Your task to perform on an android device: change timer sound Image 0: 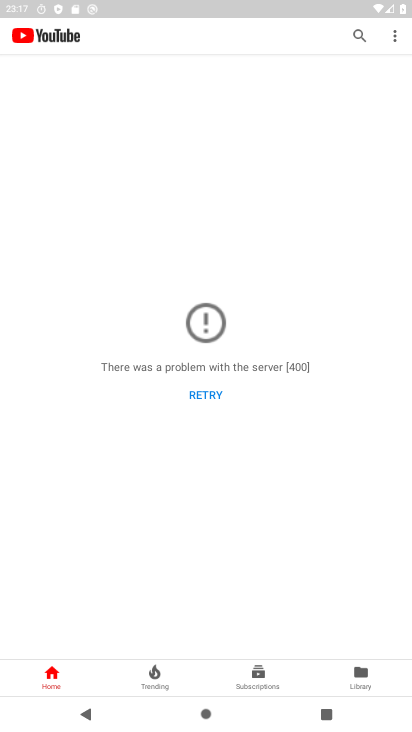
Step 0: press home button
Your task to perform on an android device: change timer sound Image 1: 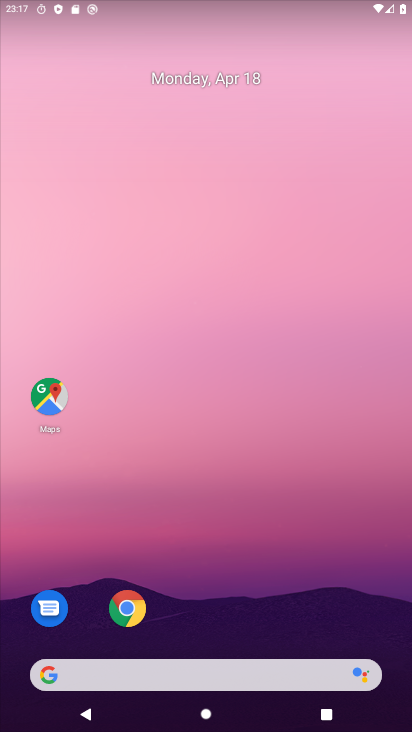
Step 1: drag from (237, 524) to (275, 118)
Your task to perform on an android device: change timer sound Image 2: 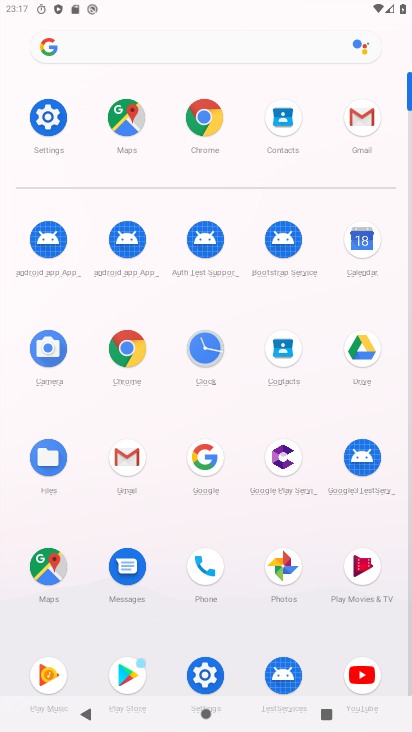
Step 2: click (207, 353)
Your task to perform on an android device: change timer sound Image 3: 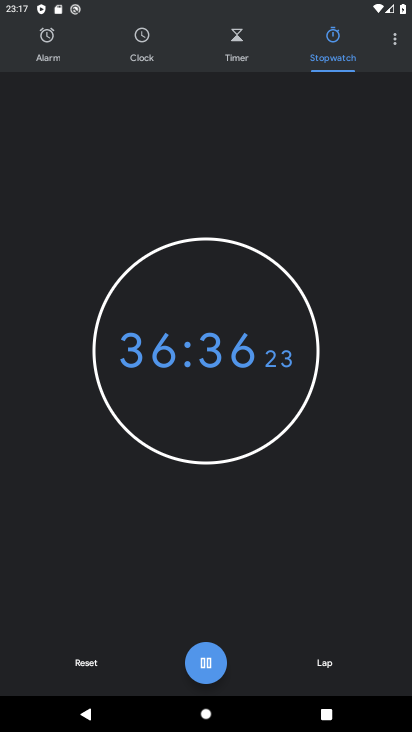
Step 3: click (396, 38)
Your task to perform on an android device: change timer sound Image 4: 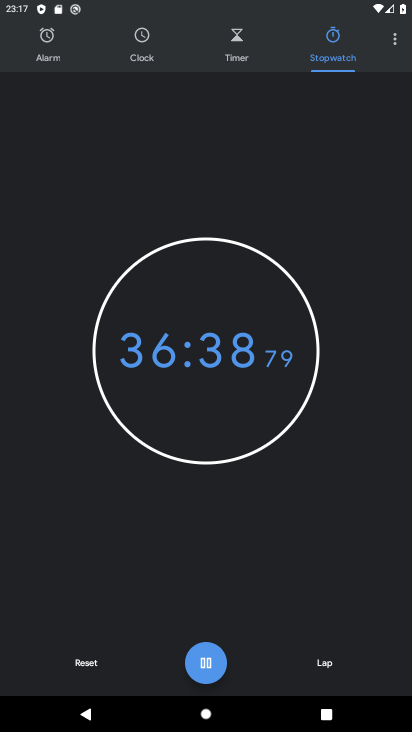
Step 4: click (386, 39)
Your task to perform on an android device: change timer sound Image 5: 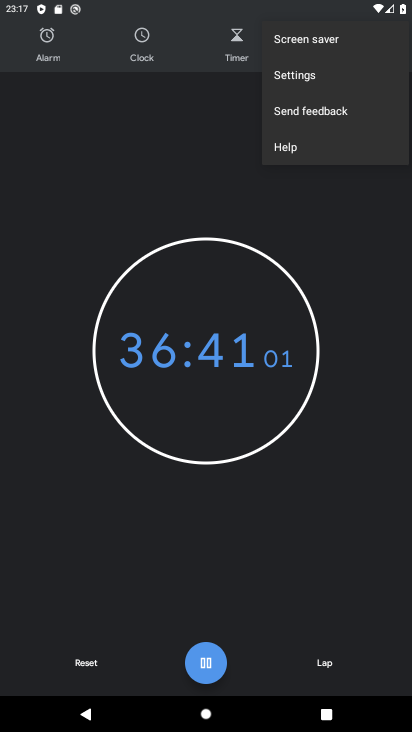
Step 5: click (283, 73)
Your task to perform on an android device: change timer sound Image 6: 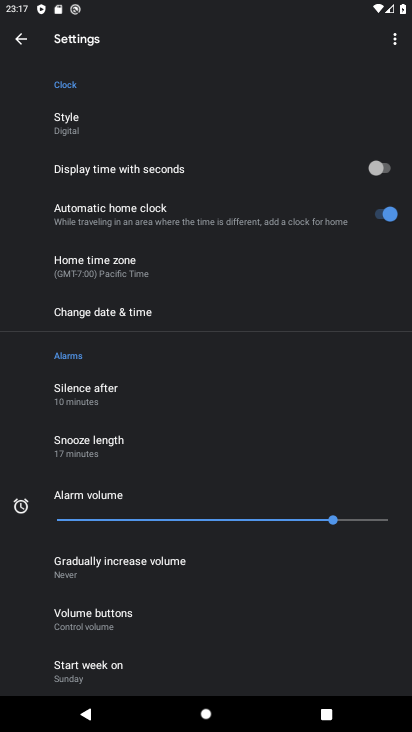
Step 6: drag from (163, 586) to (197, 228)
Your task to perform on an android device: change timer sound Image 7: 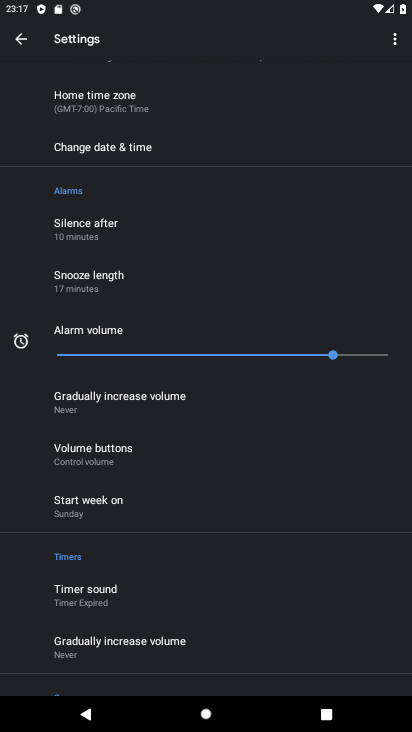
Step 7: click (104, 599)
Your task to perform on an android device: change timer sound Image 8: 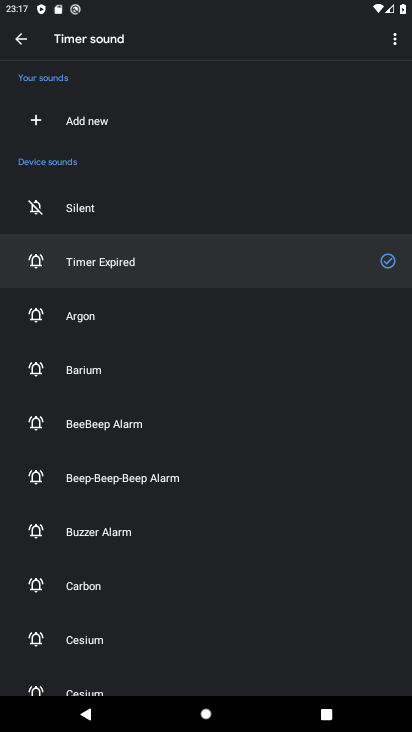
Step 8: click (111, 319)
Your task to perform on an android device: change timer sound Image 9: 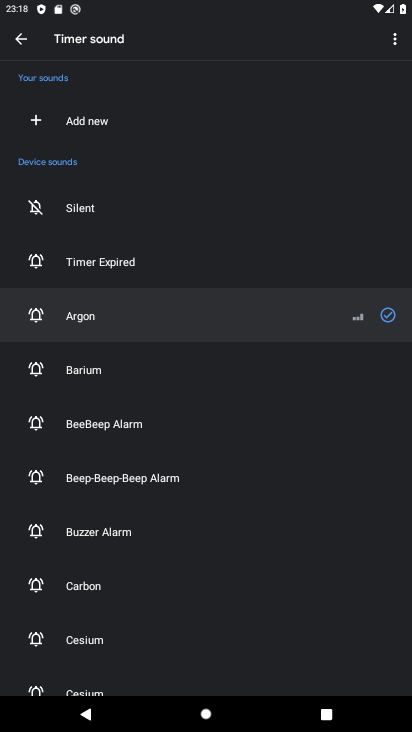
Step 9: task complete